Your task to perform on an android device: Open Google Chrome and click the shortcut for Amazon.com Image 0: 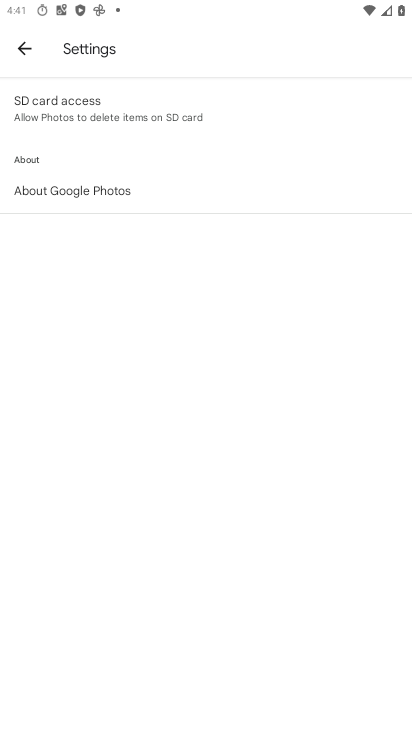
Step 0: press home button
Your task to perform on an android device: Open Google Chrome and click the shortcut for Amazon.com Image 1: 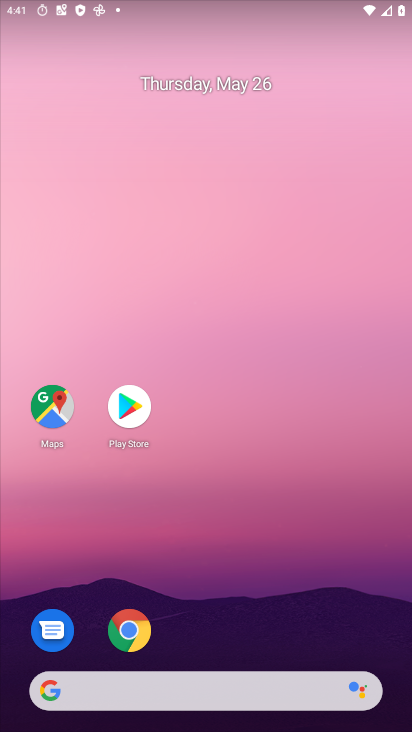
Step 1: click (132, 628)
Your task to perform on an android device: Open Google Chrome and click the shortcut for Amazon.com Image 2: 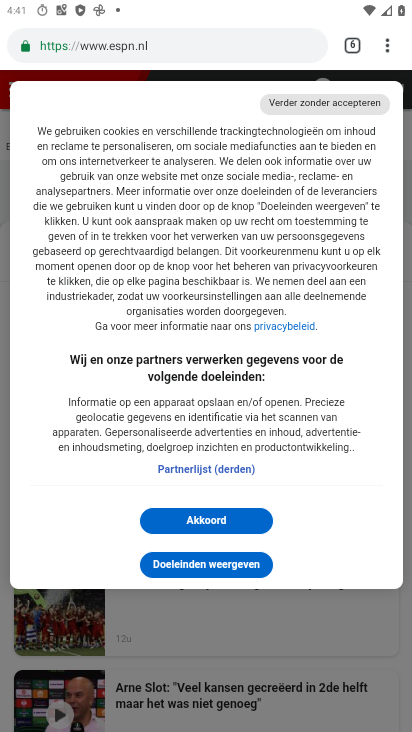
Step 2: click (352, 42)
Your task to perform on an android device: Open Google Chrome and click the shortcut for Amazon.com Image 3: 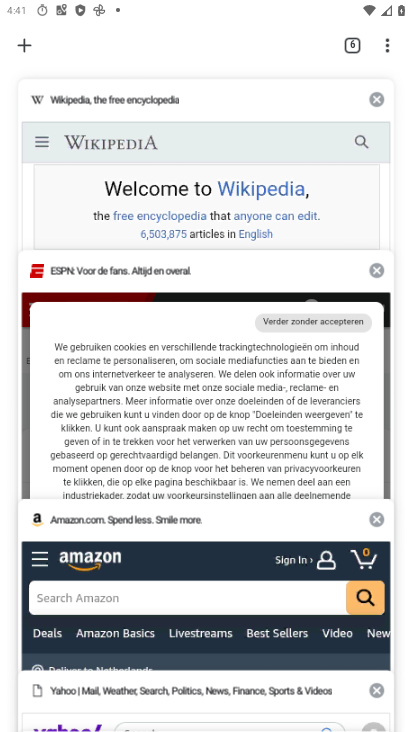
Step 3: click (24, 41)
Your task to perform on an android device: Open Google Chrome and click the shortcut for Amazon.com Image 4: 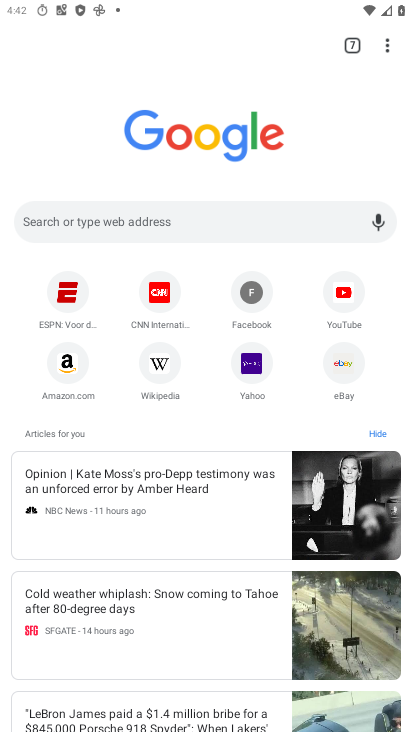
Step 4: click (67, 363)
Your task to perform on an android device: Open Google Chrome and click the shortcut for Amazon.com Image 5: 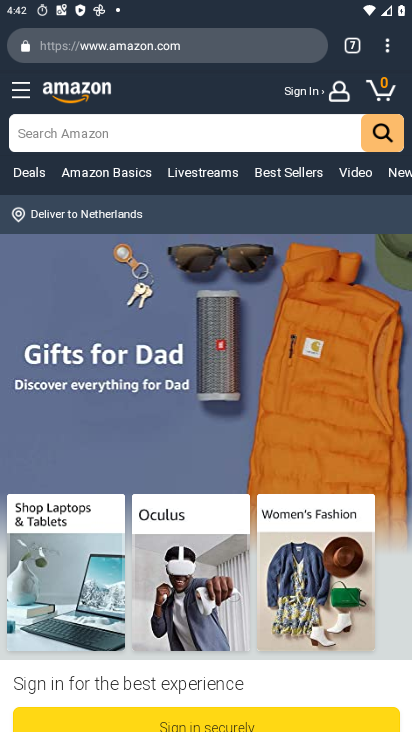
Step 5: task complete